Your task to perform on an android device: toggle javascript in the chrome app Image 0: 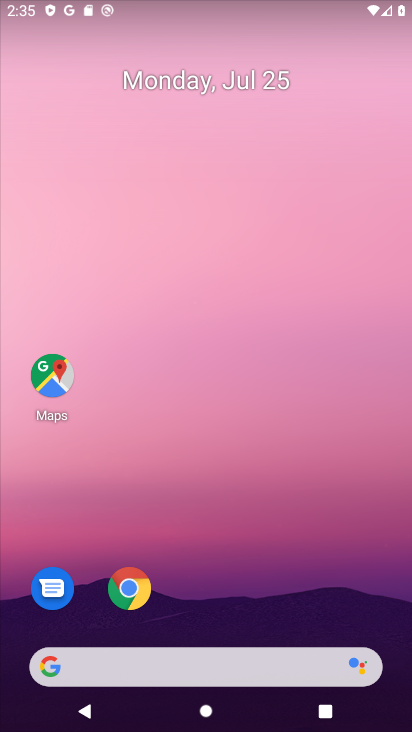
Step 0: click (127, 583)
Your task to perform on an android device: toggle javascript in the chrome app Image 1: 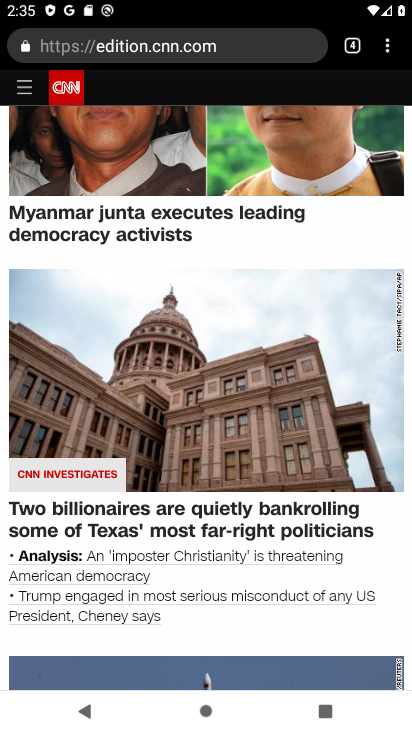
Step 1: click (388, 41)
Your task to perform on an android device: toggle javascript in the chrome app Image 2: 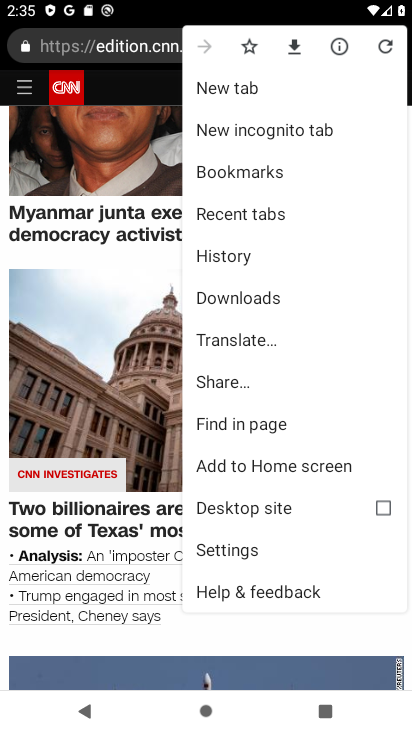
Step 2: click (264, 542)
Your task to perform on an android device: toggle javascript in the chrome app Image 3: 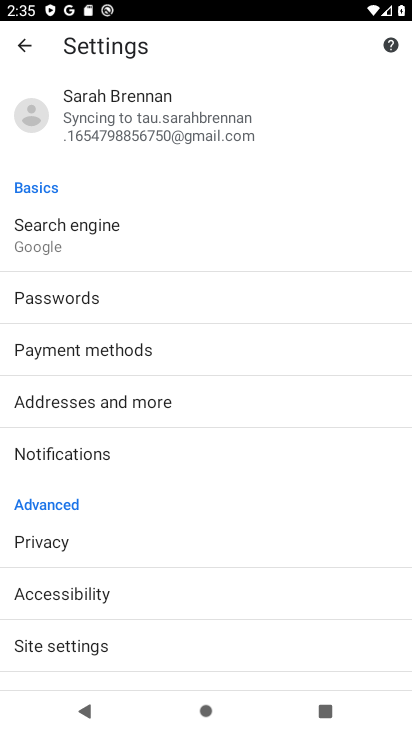
Step 3: drag from (154, 600) to (164, 285)
Your task to perform on an android device: toggle javascript in the chrome app Image 4: 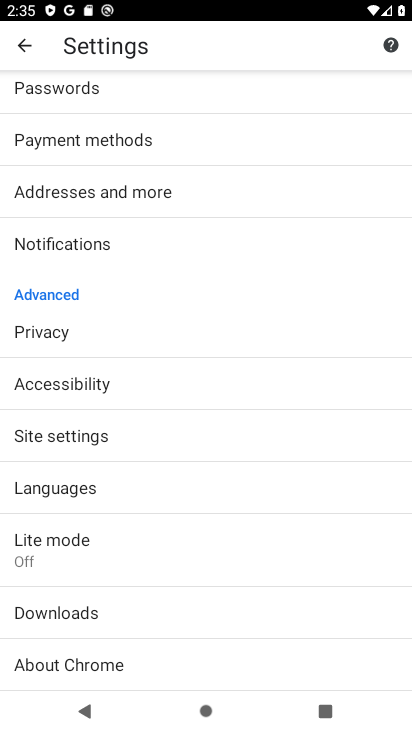
Step 4: click (116, 437)
Your task to perform on an android device: toggle javascript in the chrome app Image 5: 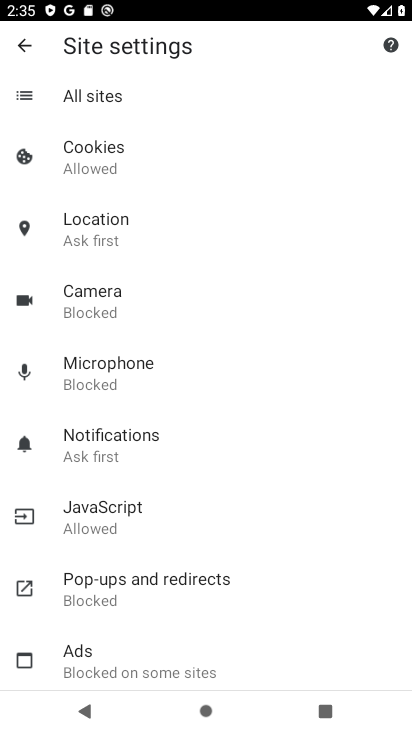
Step 5: click (154, 515)
Your task to perform on an android device: toggle javascript in the chrome app Image 6: 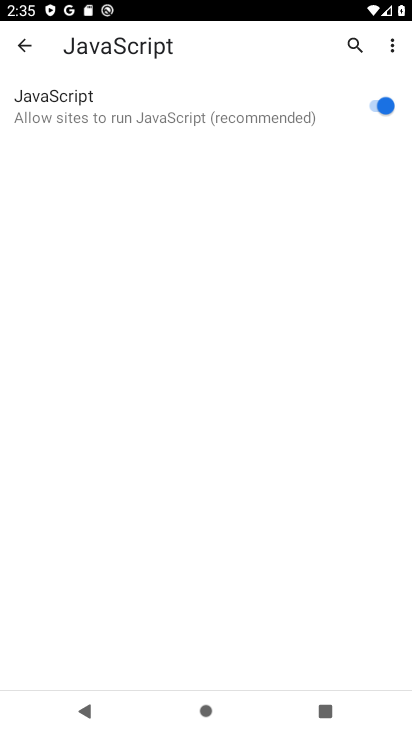
Step 6: click (377, 104)
Your task to perform on an android device: toggle javascript in the chrome app Image 7: 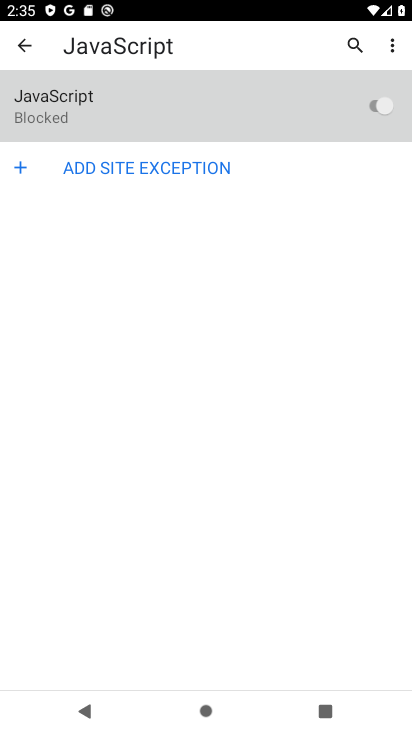
Step 7: task complete